Your task to perform on an android device: Turn off the flashlight Image 0: 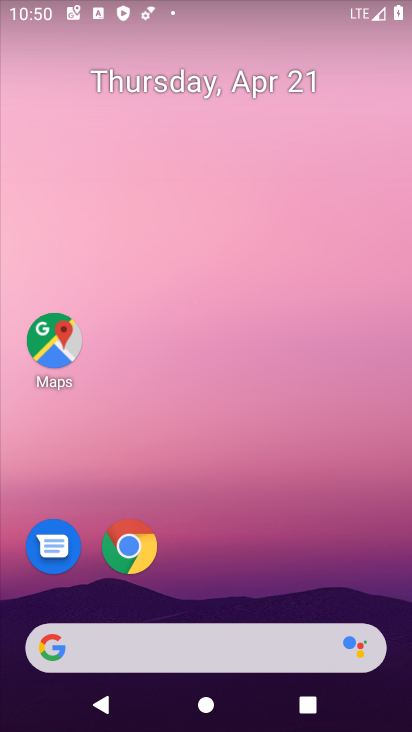
Step 0: drag from (210, 7) to (295, 633)
Your task to perform on an android device: Turn off the flashlight Image 1: 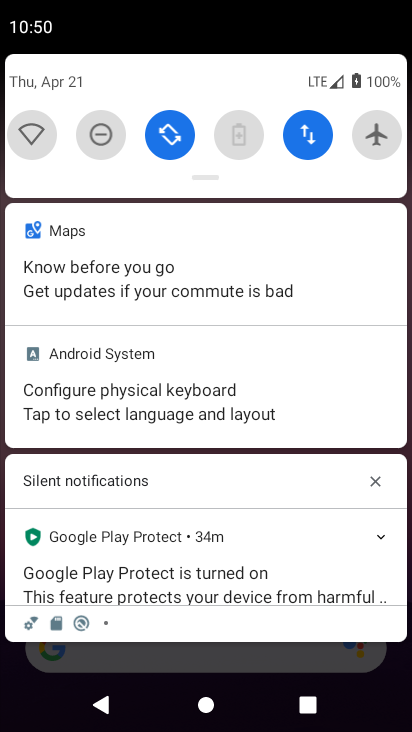
Step 1: drag from (206, 176) to (173, 568)
Your task to perform on an android device: Turn off the flashlight Image 2: 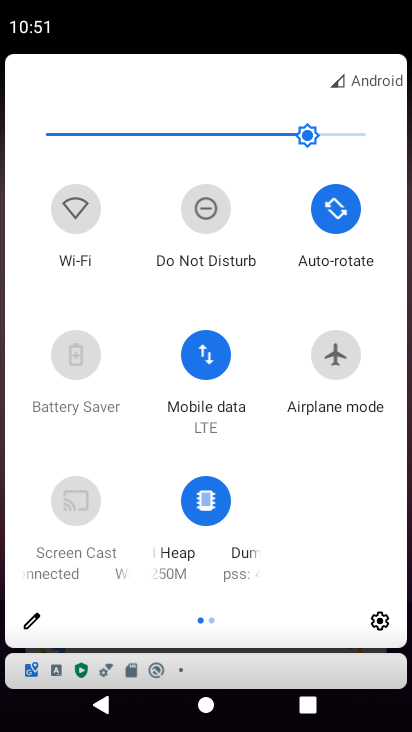
Step 2: click (26, 621)
Your task to perform on an android device: Turn off the flashlight Image 3: 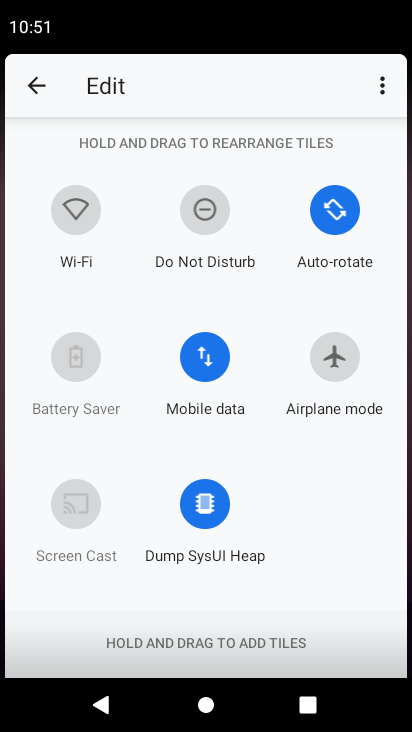
Step 3: task complete